Your task to perform on an android device: set default search engine in the chrome app Image 0: 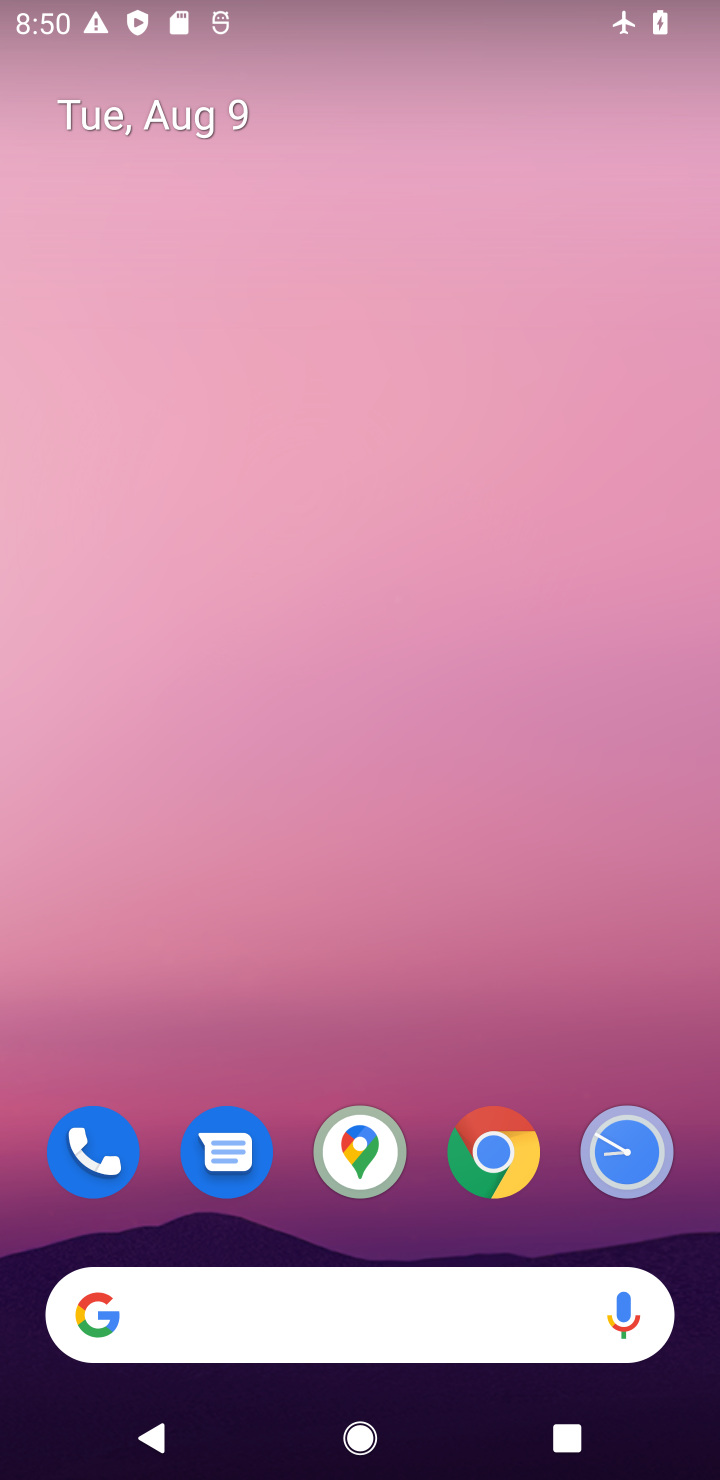
Step 0: click (508, 1158)
Your task to perform on an android device: set default search engine in the chrome app Image 1: 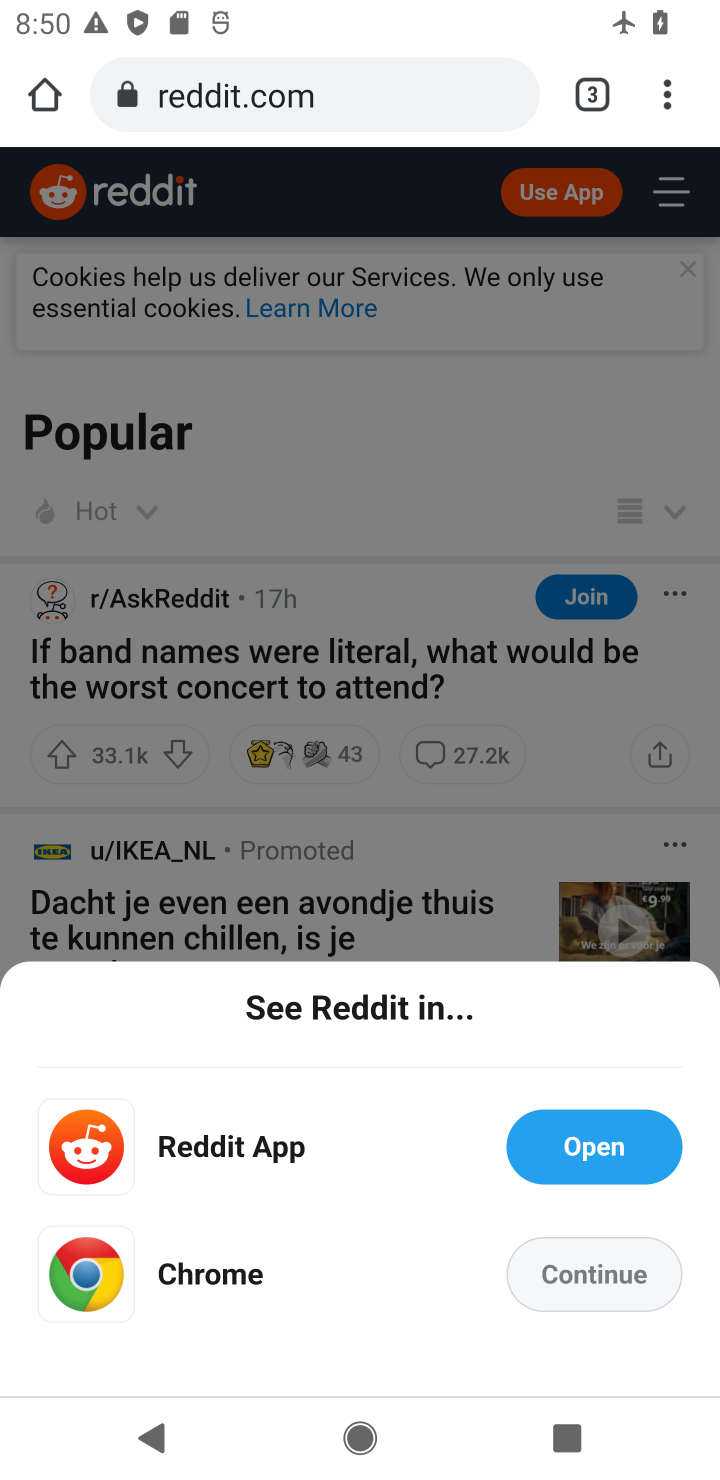
Step 1: click (690, 89)
Your task to perform on an android device: set default search engine in the chrome app Image 2: 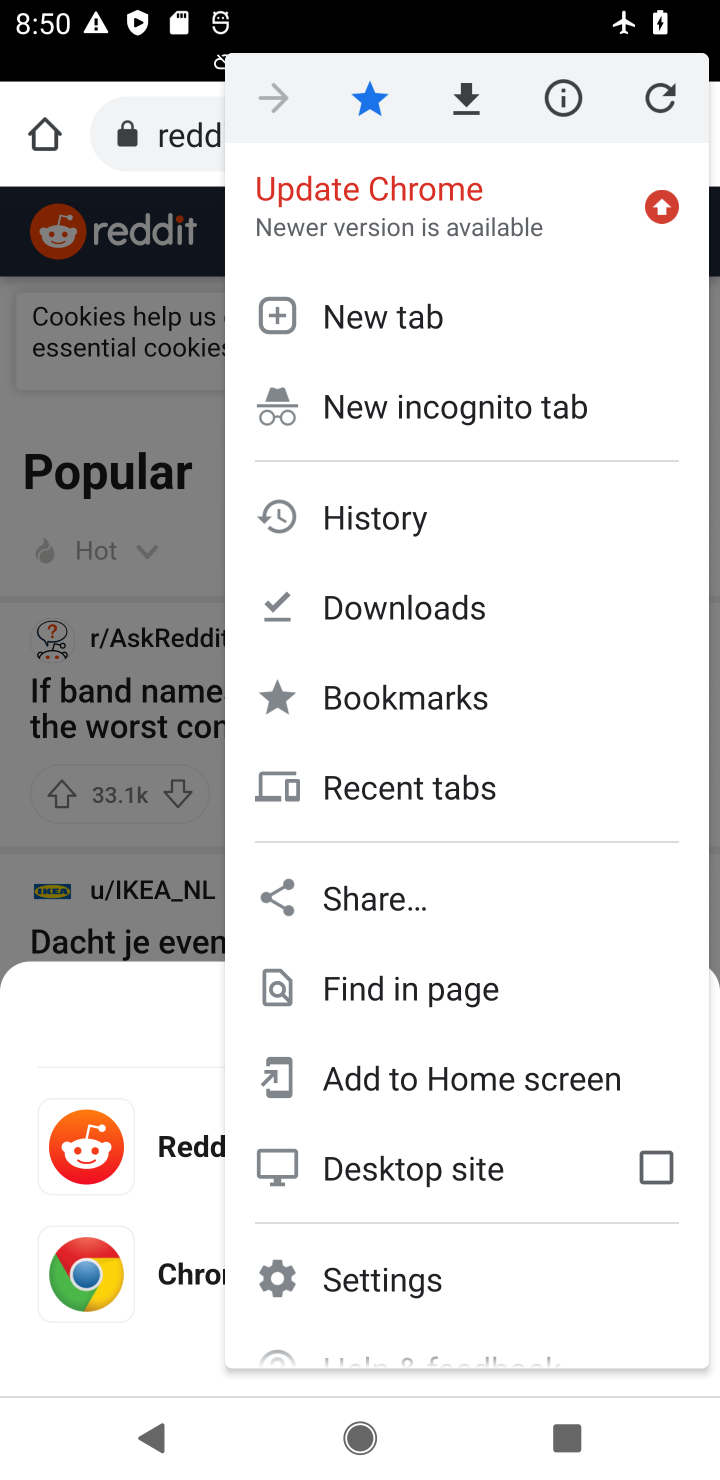
Step 2: click (406, 1297)
Your task to perform on an android device: set default search engine in the chrome app Image 3: 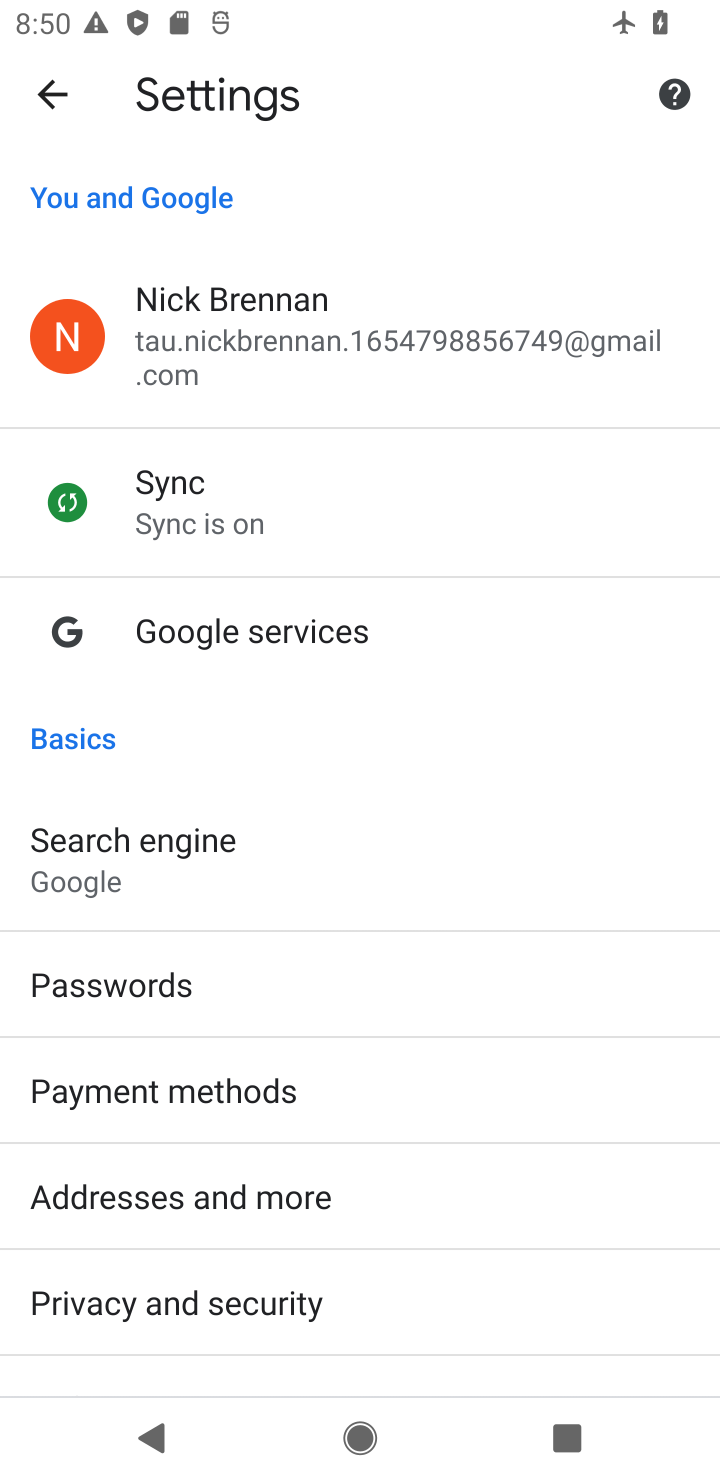
Step 3: click (198, 851)
Your task to perform on an android device: set default search engine in the chrome app Image 4: 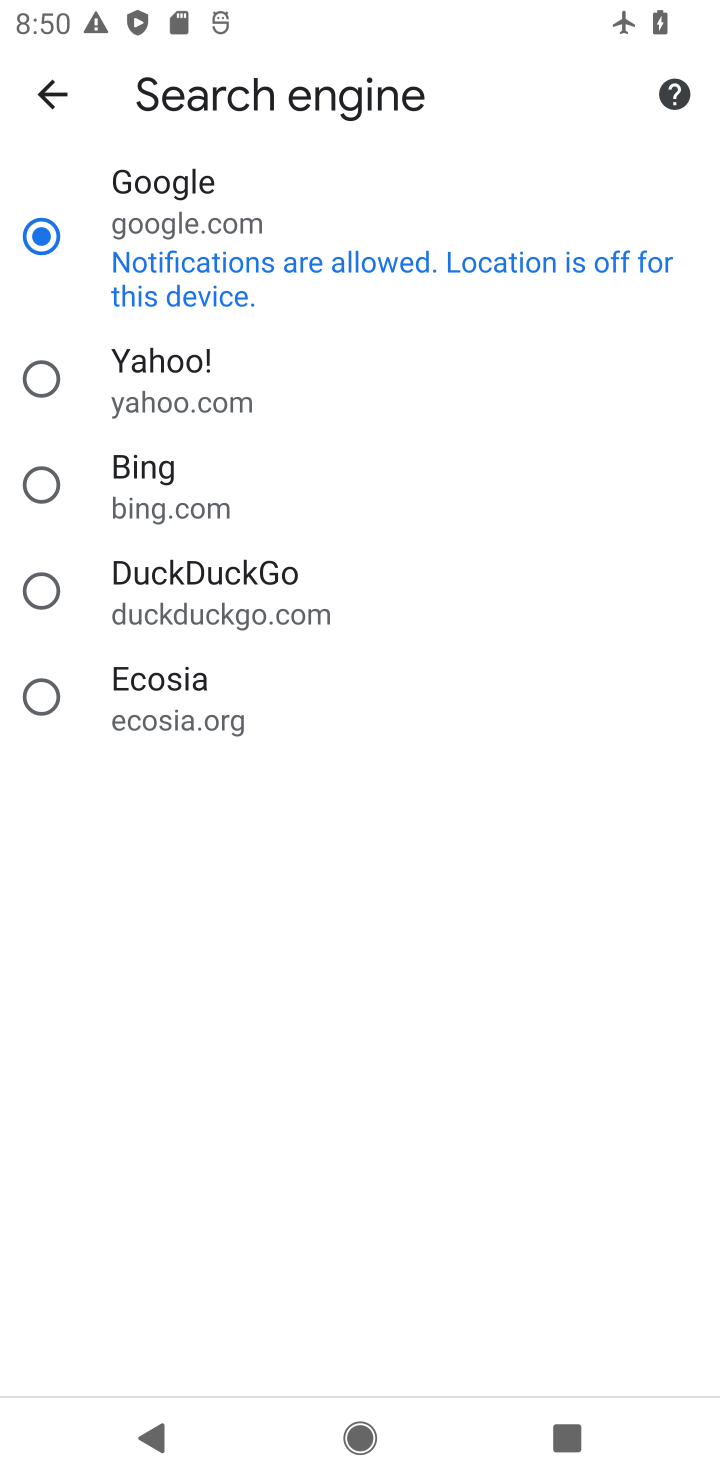
Step 4: click (218, 728)
Your task to perform on an android device: set default search engine in the chrome app Image 5: 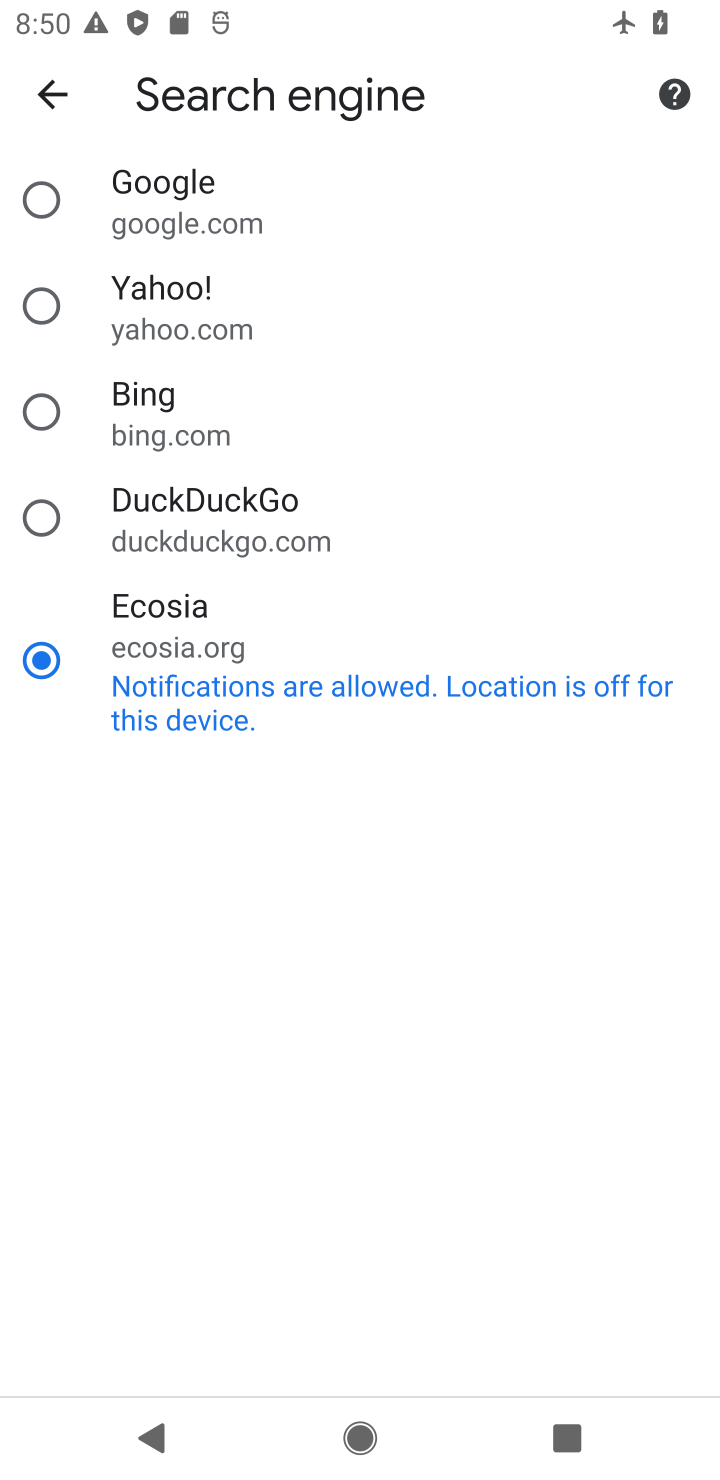
Step 5: task complete